Your task to perform on an android device: find photos in the google photos app Image 0: 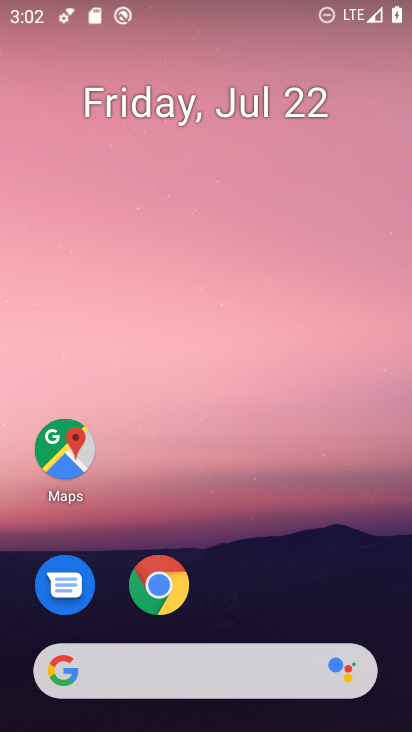
Step 0: drag from (255, 561) to (214, 42)
Your task to perform on an android device: find photos in the google photos app Image 1: 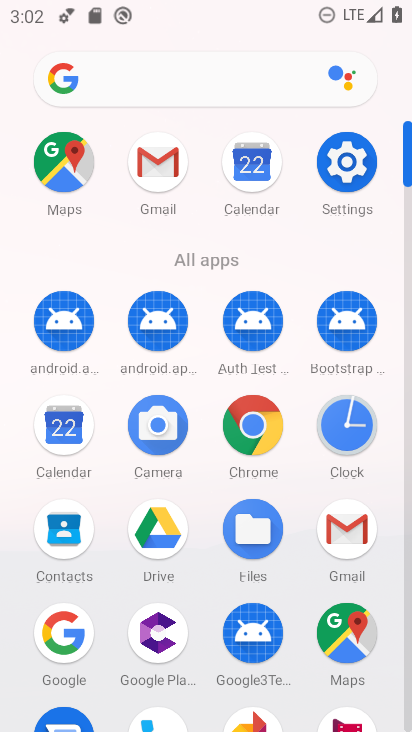
Step 1: drag from (212, 519) to (217, 165)
Your task to perform on an android device: find photos in the google photos app Image 2: 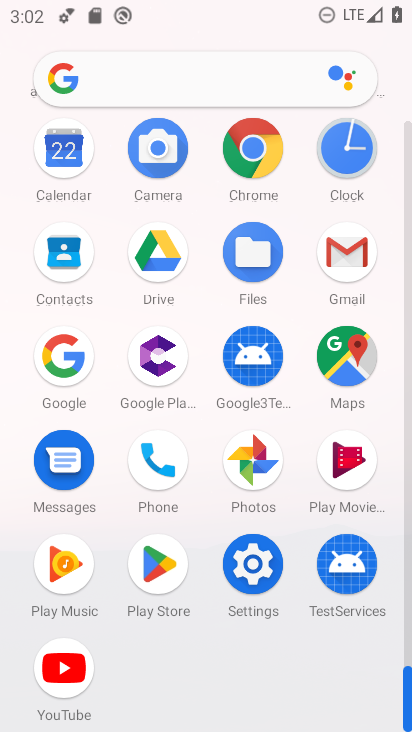
Step 2: click (259, 456)
Your task to perform on an android device: find photos in the google photos app Image 3: 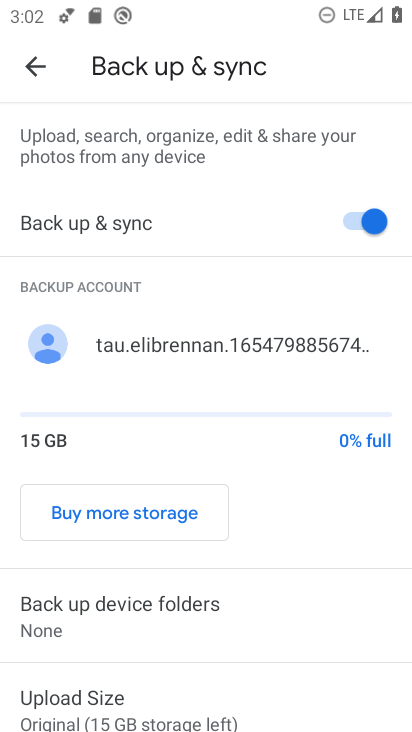
Step 3: drag from (252, 566) to (245, 183)
Your task to perform on an android device: find photos in the google photos app Image 4: 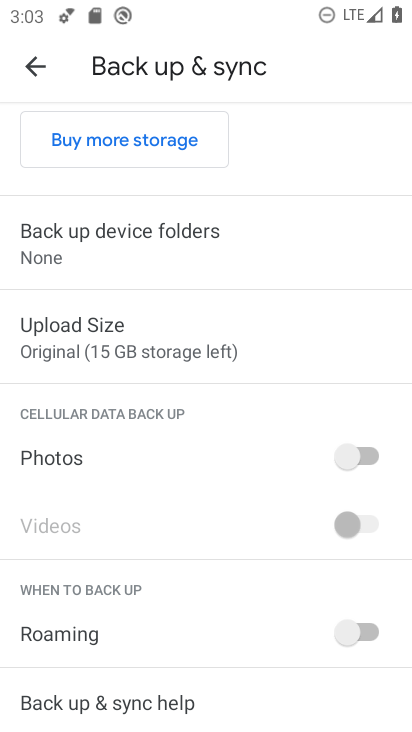
Step 4: drag from (243, 338) to (272, 693)
Your task to perform on an android device: find photos in the google photos app Image 5: 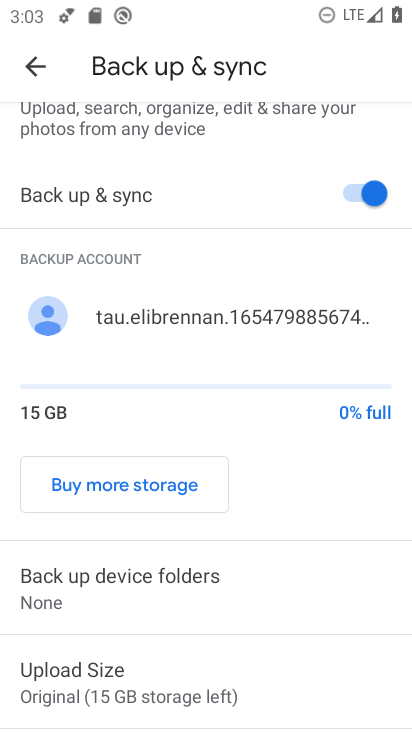
Step 5: click (39, 65)
Your task to perform on an android device: find photos in the google photos app Image 6: 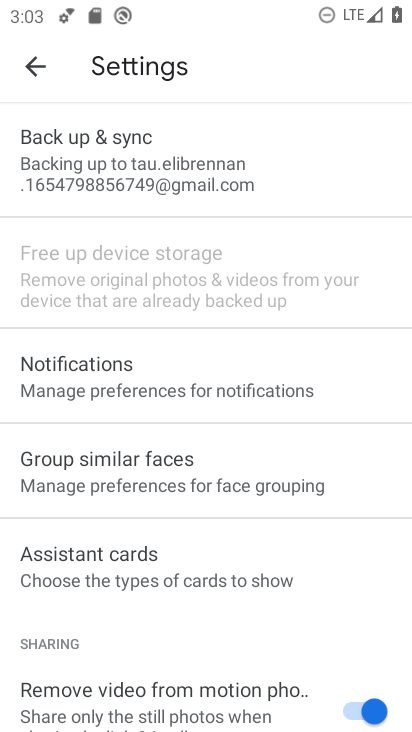
Step 6: click (41, 65)
Your task to perform on an android device: find photos in the google photos app Image 7: 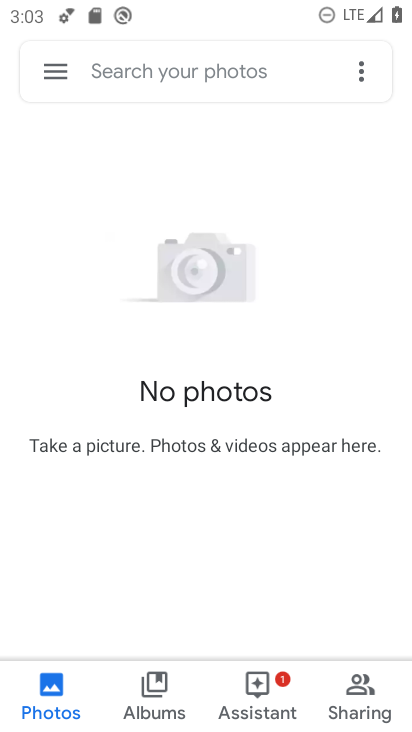
Step 7: task complete